Your task to perform on an android device: open wifi settings Image 0: 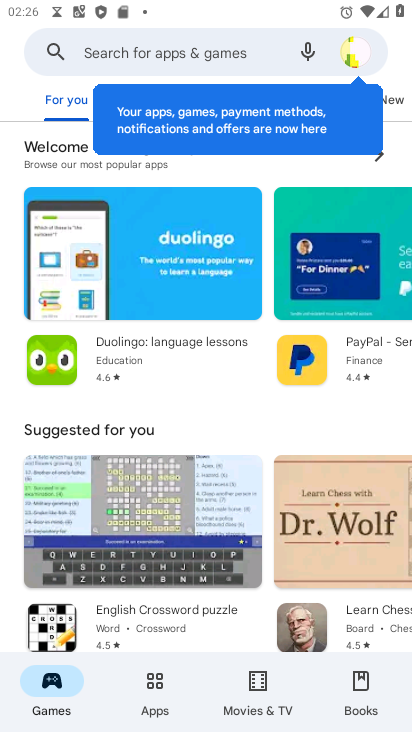
Step 0: press home button
Your task to perform on an android device: open wifi settings Image 1: 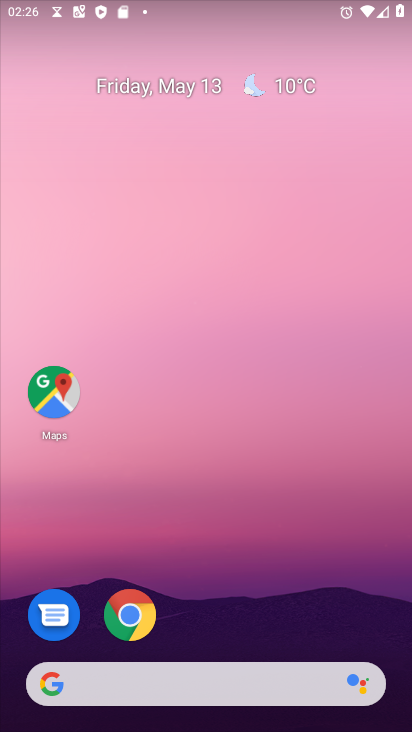
Step 1: drag from (180, 589) to (128, 62)
Your task to perform on an android device: open wifi settings Image 2: 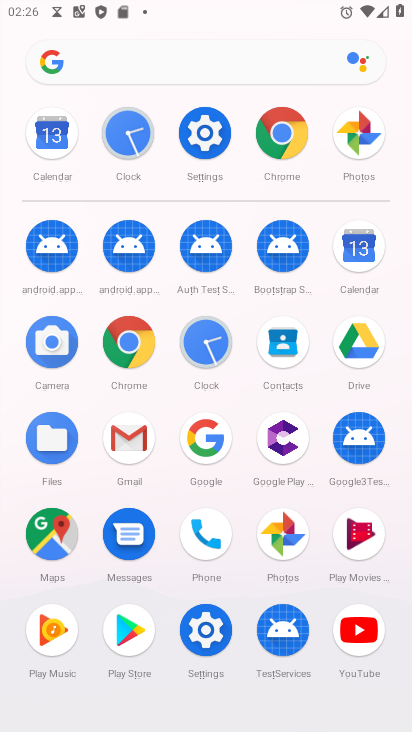
Step 2: click (208, 132)
Your task to perform on an android device: open wifi settings Image 3: 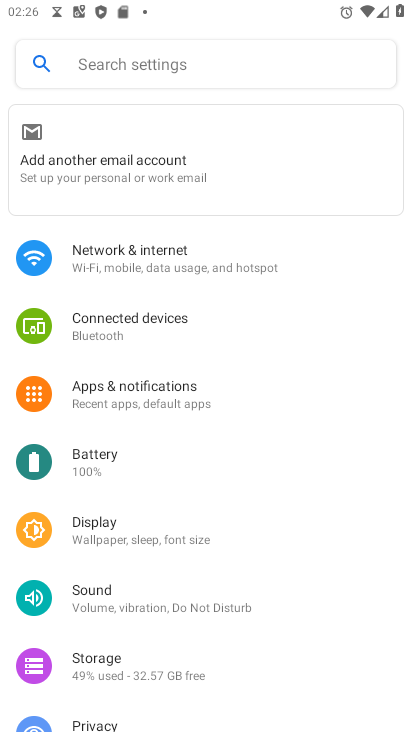
Step 3: click (153, 244)
Your task to perform on an android device: open wifi settings Image 4: 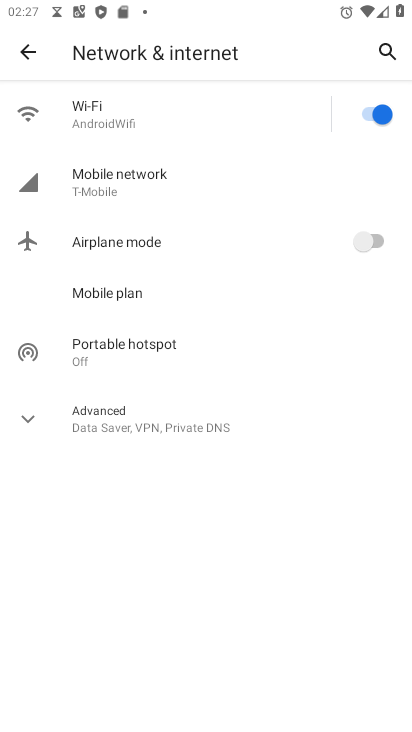
Step 4: click (126, 112)
Your task to perform on an android device: open wifi settings Image 5: 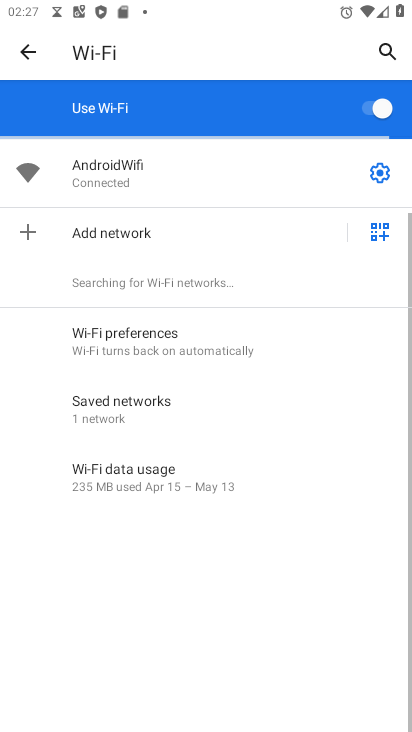
Step 5: task complete